Your task to perform on an android device: Go to battery settings Image 0: 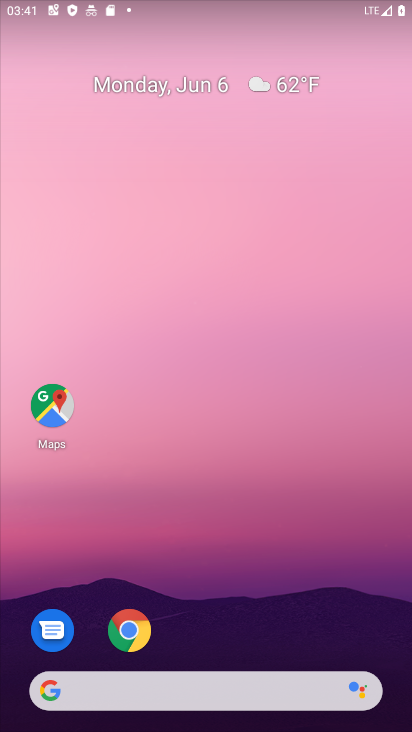
Step 0: press home button
Your task to perform on an android device: Go to battery settings Image 1: 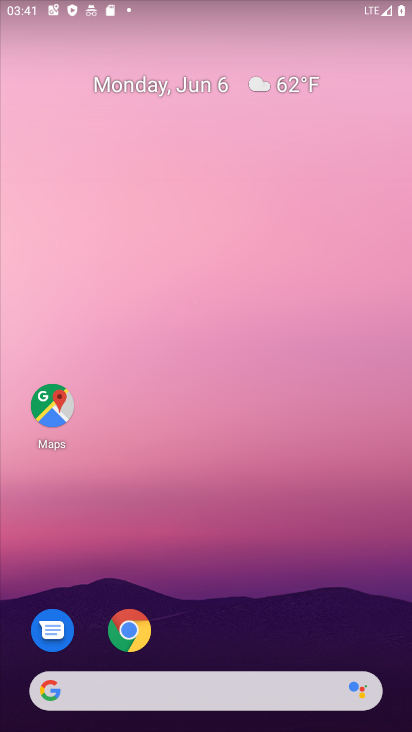
Step 1: drag from (145, 591) to (159, 25)
Your task to perform on an android device: Go to battery settings Image 2: 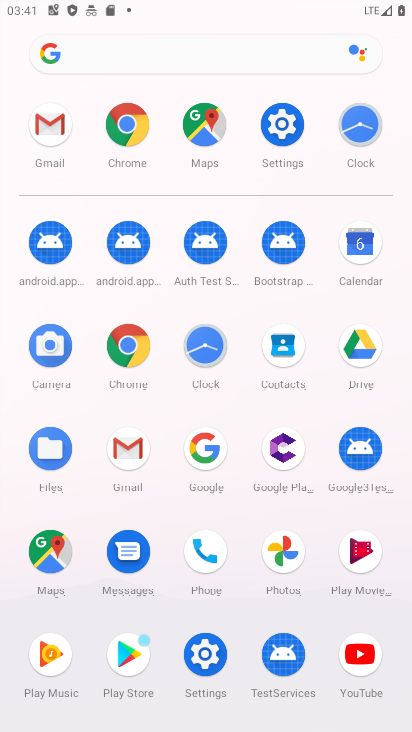
Step 2: click (278, 125)
Your task to perform on an android device: Go to battery settings Image 3: 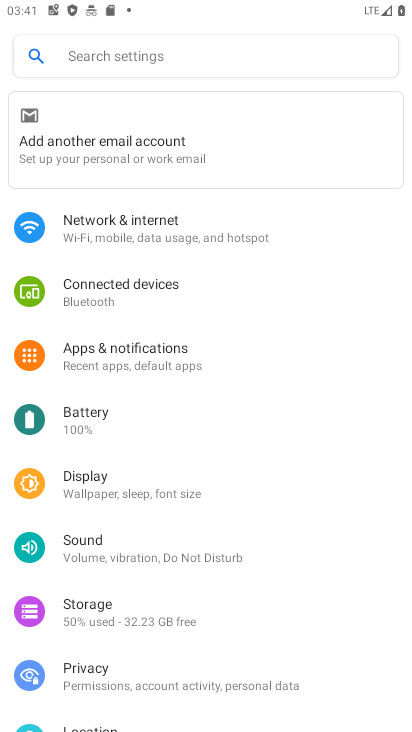
Step 3: click (127, 445)
Your task to perform on an android device: Go to battery settings Image 4: 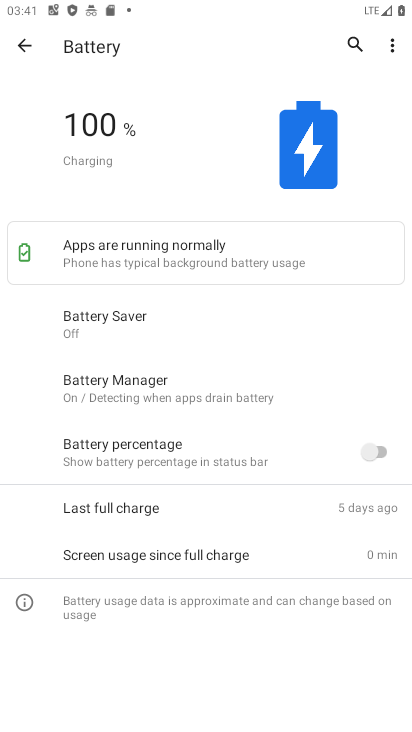
Step 4: task complete